Your task to perform on an android device: Turn on the flashlight Image 0: 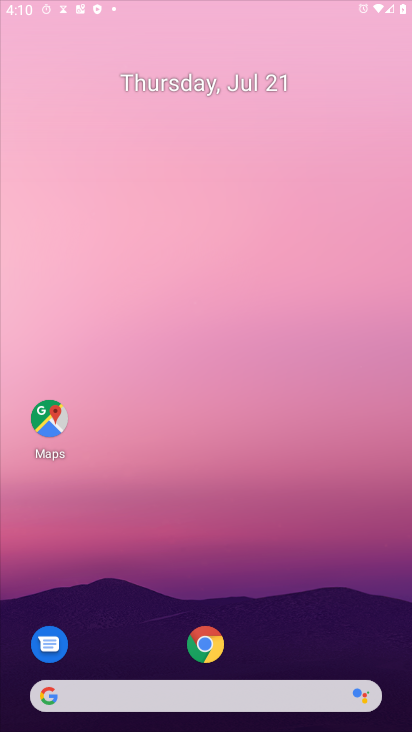
Step 0: press home button
Your task to perform on an android device: Turn on the flashlight Image 1: 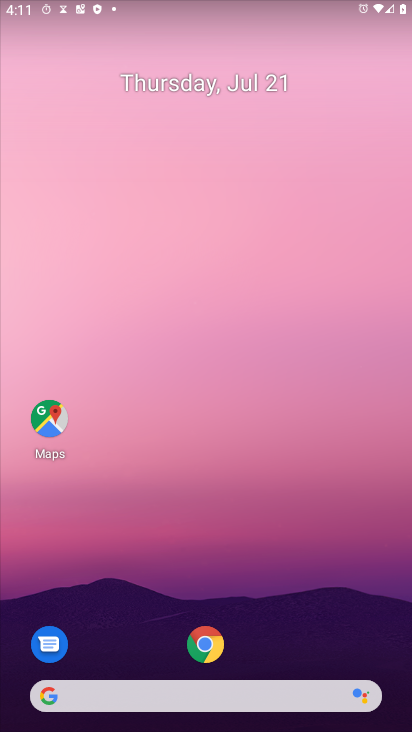
Step 1: task complete